Your task to perform on an android device: delete the emails in spam in the gmail app Image 0: 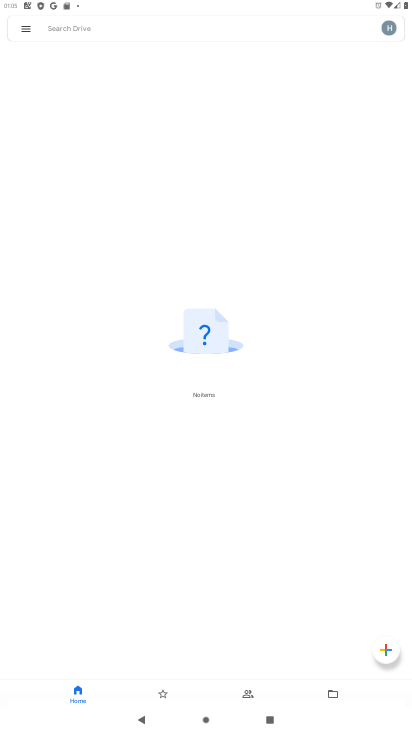
Step 0: press home button
Your task to perform on an android device: delete the emails in spam in the gmail app Image 1: 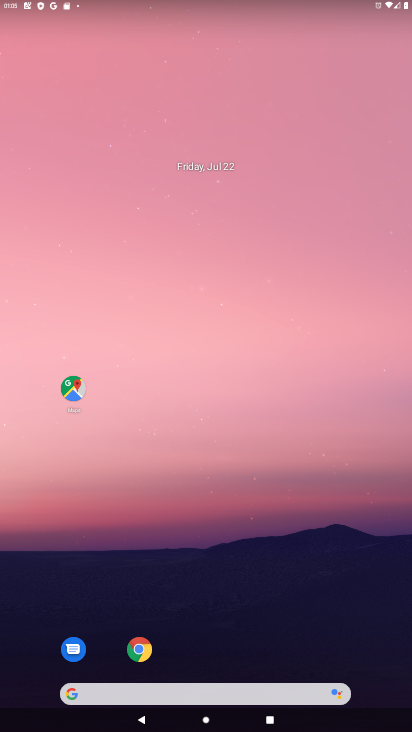
Step 1: drag from (280, 468) to (237, 69)
Your task to perform on an android device: delete the emails in spam in the gmail app Image 2: 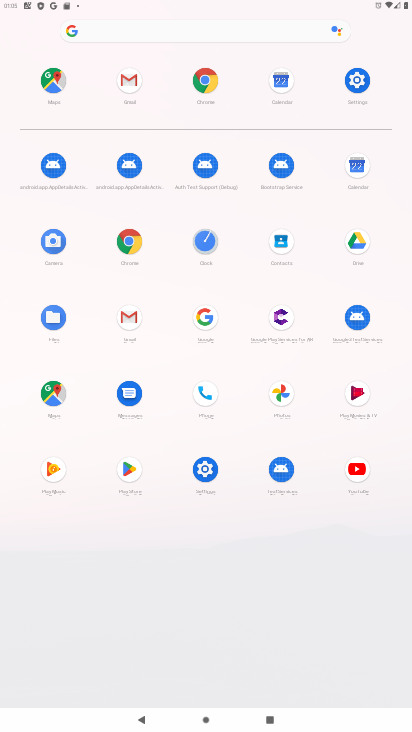
Step 2: click (128, 75)
Your task to perform on an android device: delete the emails in spam in the gmail app Image 3: 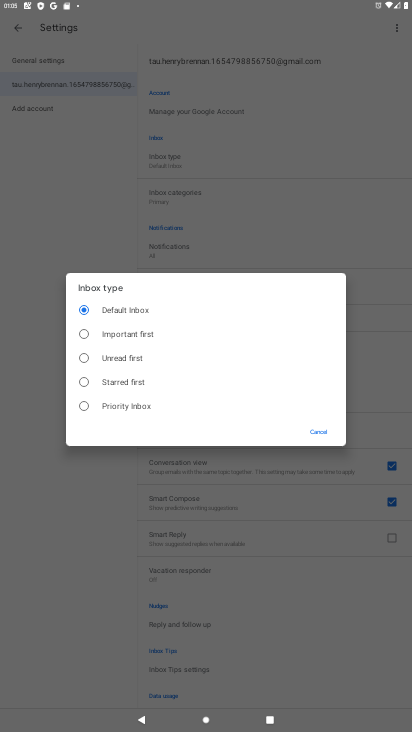
Step 3: click (318, 424)
Your task to perform on an android device: delete the emails in spam in the gmail app Image 4: 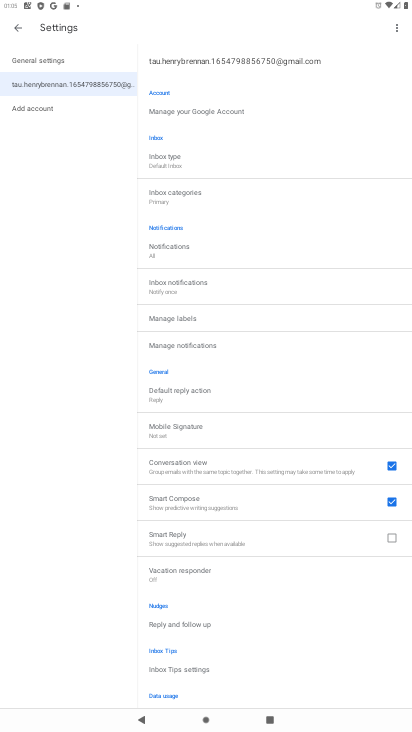
Step 4: click (19, 18)
Your task to perform on an android device: delete the emails in spam in the gmail app Image 5: 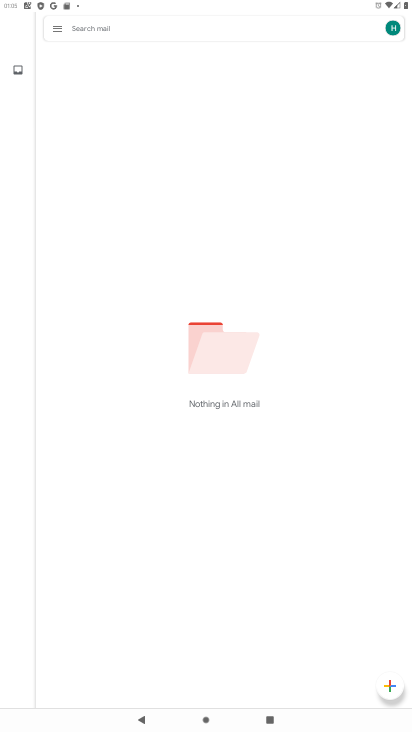
Step 5: click (57, 29)
Your task to perform on an android device: delete the emails in spam in the gmail app Image 6: 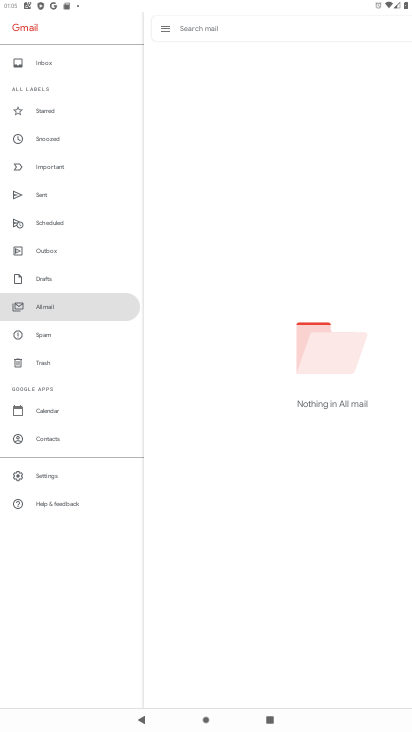
Step 6: click (46, 339)
Your task to perform on an android device: delete the emails in spam in the gmail app Image 7: 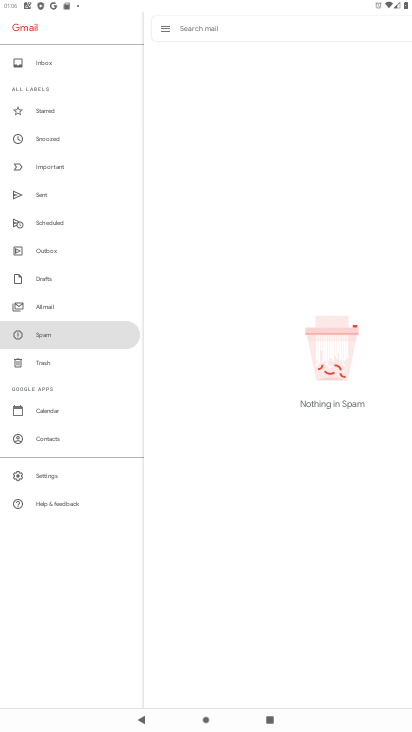
Step 7: task complete